Your task to perform on an android device: Open Google Maps and go to "Timeline" Image 0: 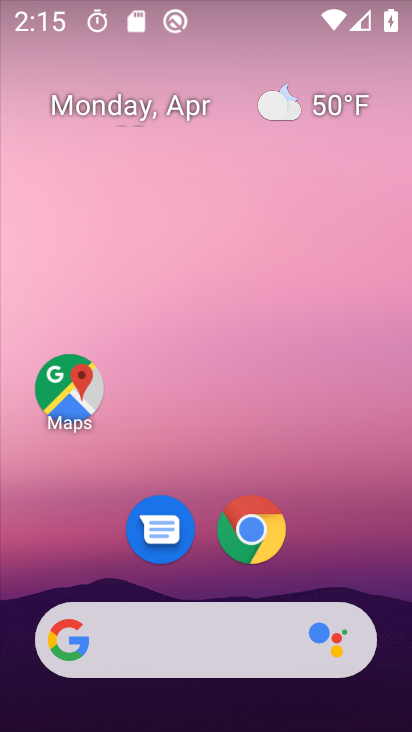
Step 0: click (57, 375)
Your task to perform on an android device: Open Google Maps and go to "Timeline" Image 1: 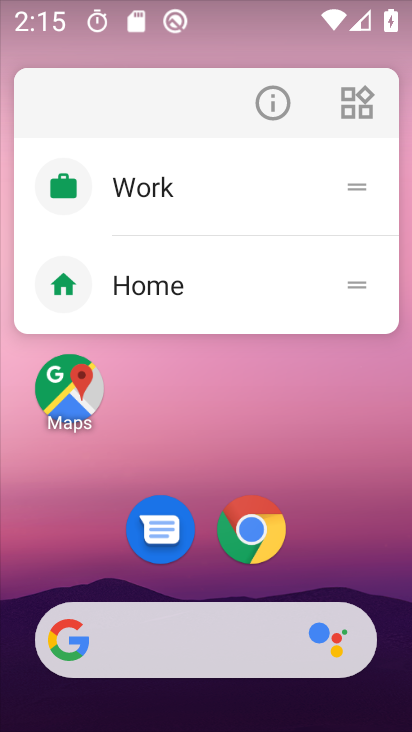
Step 1: click (72, 384)
Your task to perform on an android device: Open Google Maps and go to "Timeline" Image 2: 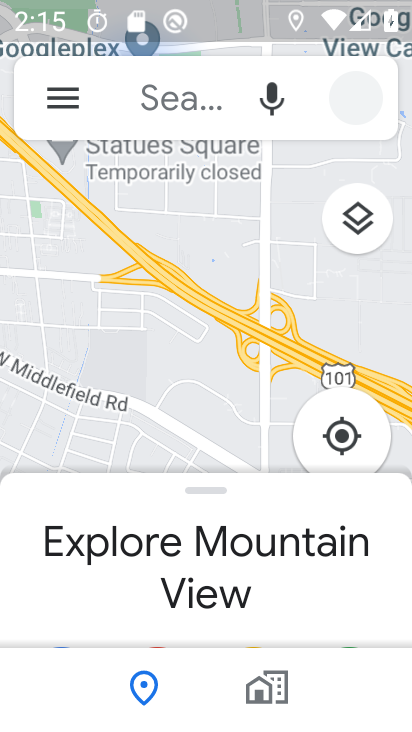
Step 2: click (45, 96)
Your task to perform on an android device: Open Google Maps and go to "Timeline" Image 3: 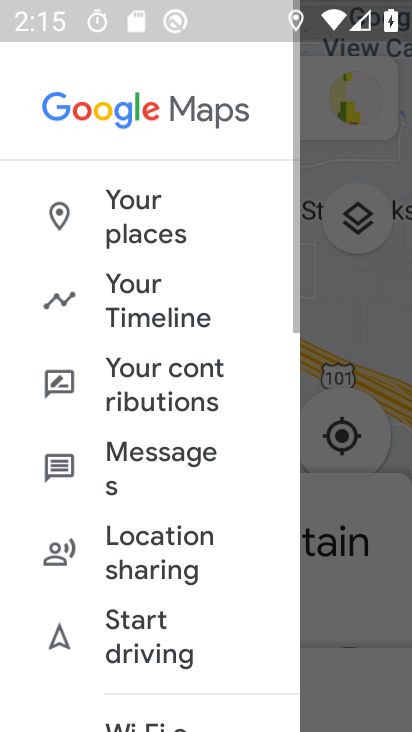
Step 3: click (111, 293)
Your task to perform on an android device: Open Google Maps and go to "Timeline" Image 4: 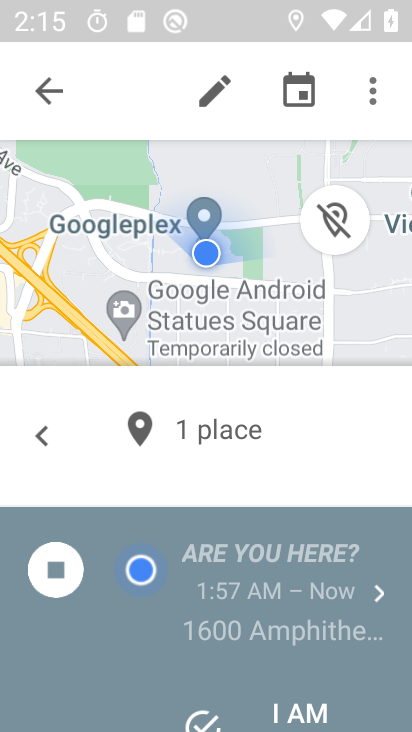
Step 4: task complete